Your task to perform on an android device: Open Google Chrome Image 0: 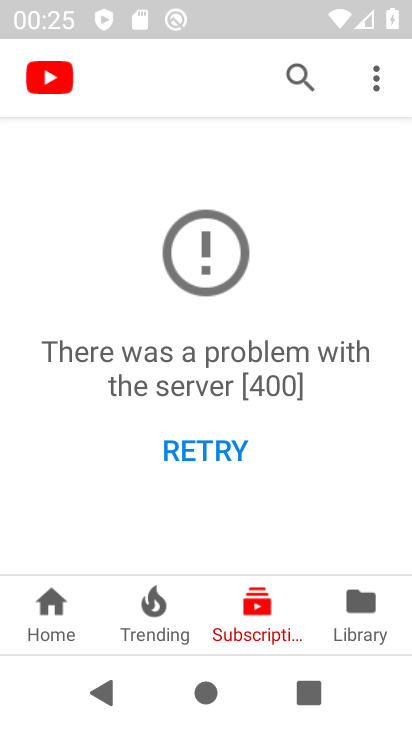
Step 0: press home button
Your task to perform on an android device: Open Google Chrome Image 1: 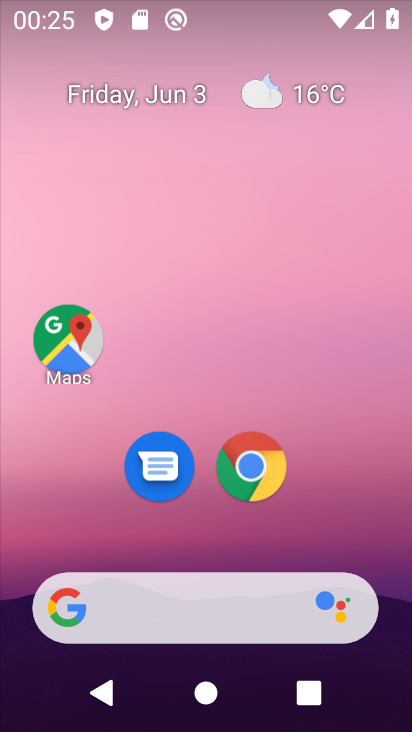
Step 1: click (255, 446)
Your task to perform on an android device: Open Google Chrome Image 2: 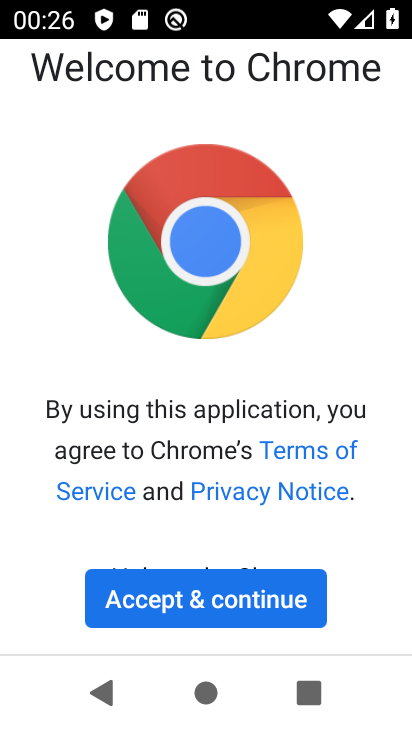
Step 2: click (264, 603)
Your task to perform on an android device: Open Google Chrome Image 3: 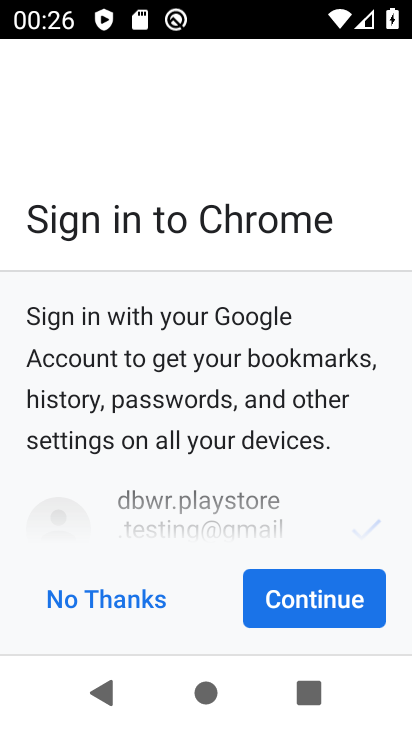
Step 3: click (264, 603)
Your task to perform on an android device: Open Google Chrome Image 4: 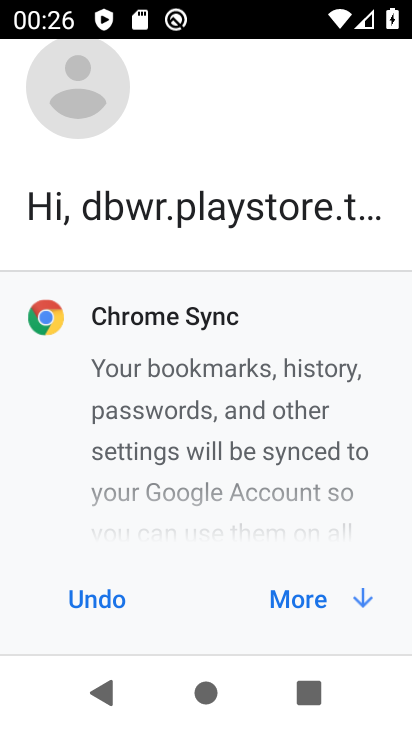
Step 4: click (295, 612)
Your task to perform on an android device: Open Google Chrome Image 5: 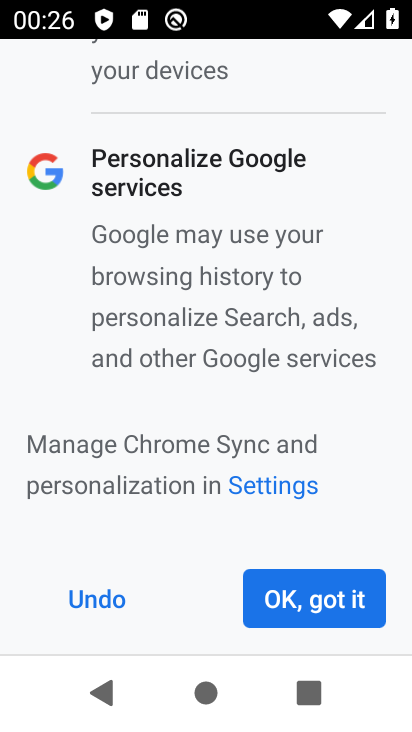
Step 5: click (297, 601)
Your task to perform on an android device: Open Google Chrome Image 6: 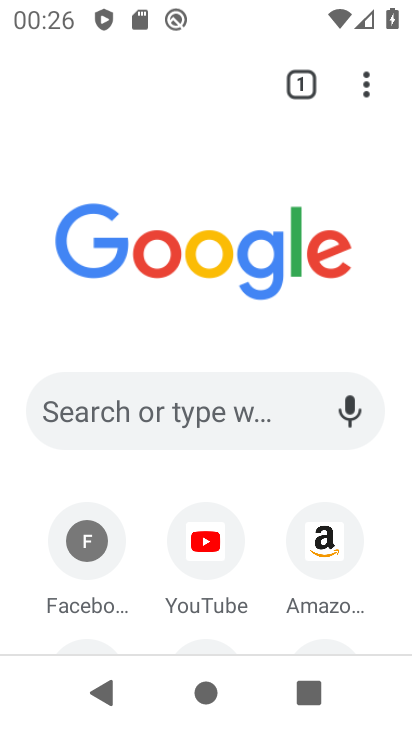
Step 6: task complete